Your task to perform on an android device: Search for flights from Buenos aires to Tokyo Image 0: 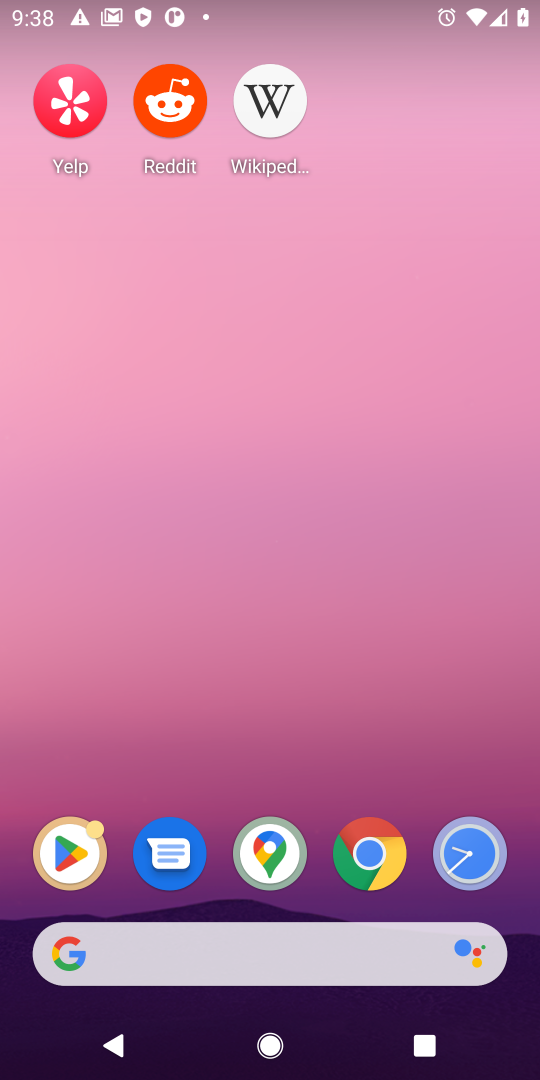
Step 0: click (377, 851)
Your task to perform on an android device: Search for flights from Buenos aires to Tokyo Image 1: 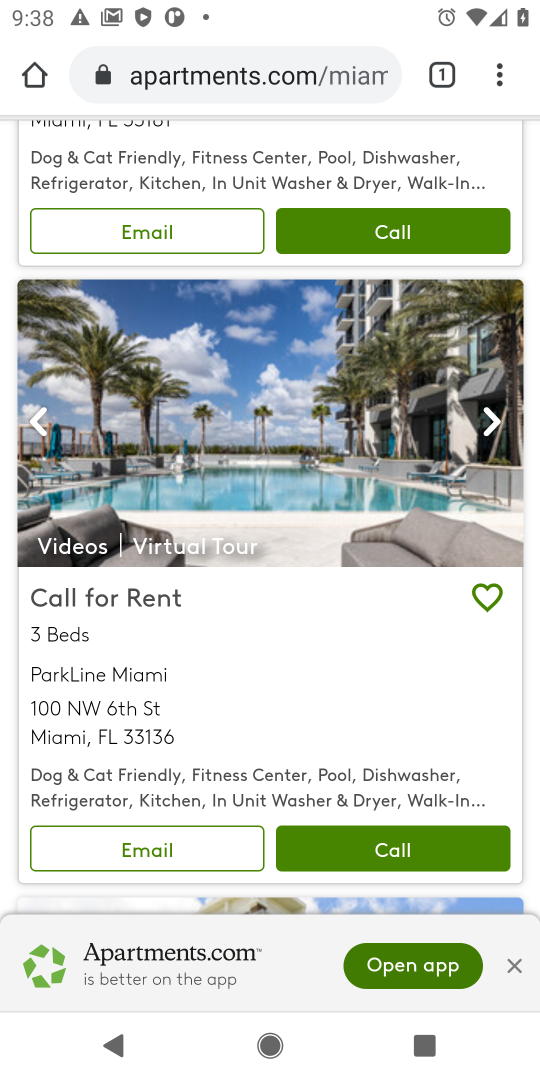
Step 1: click (273, 66)
Your task to perform on an android device: Search for flights from Buenos aires to Tokyo Image 2: 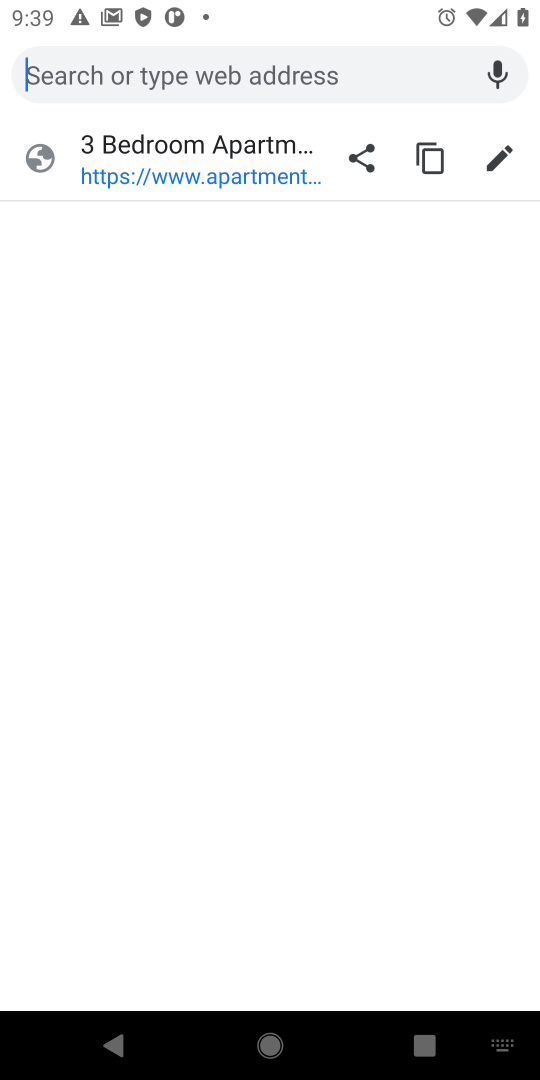
Step 2: type "buenos aires to tokyo flight"
Your task to perform on an android device: Search for flights from Buenos aires to Tokyo Image 3: 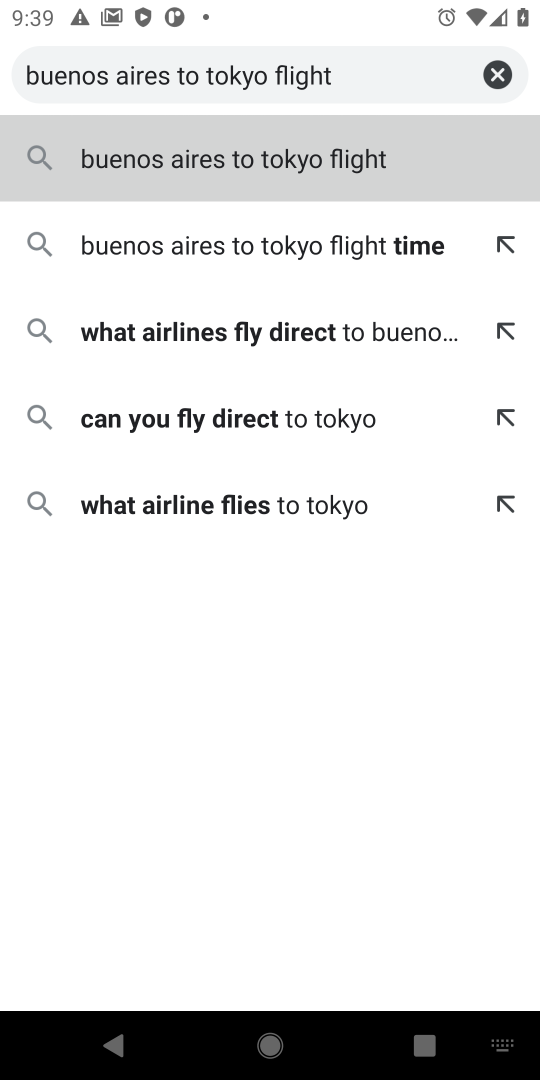
Step 3: click (392, 144)
Your task to perform on an android device: Search for flights from Buenos aires to Tokyo Image 4: 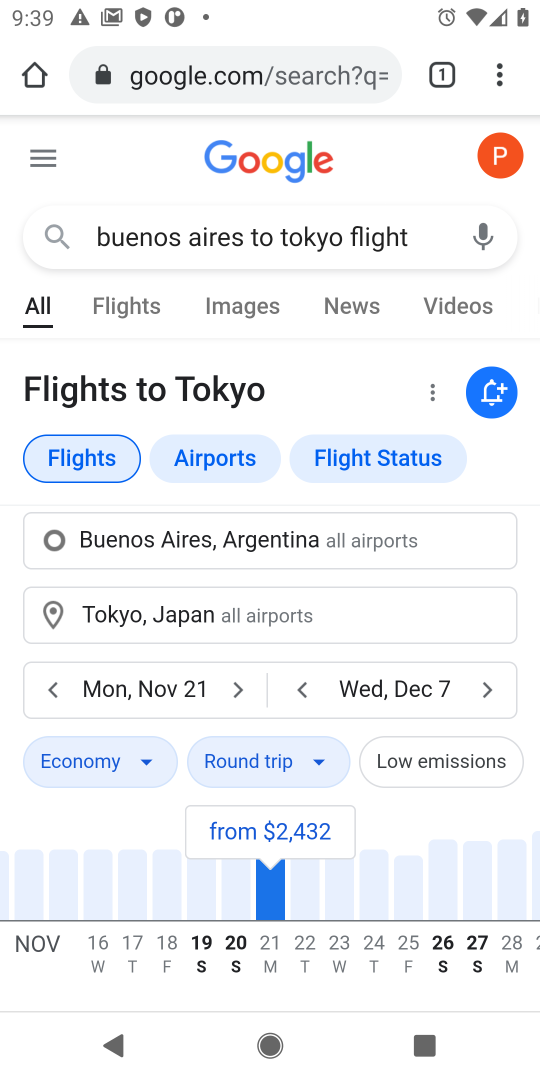
Step 4: task complete